Your task to perform on an android device: turn off wifi Image 0: 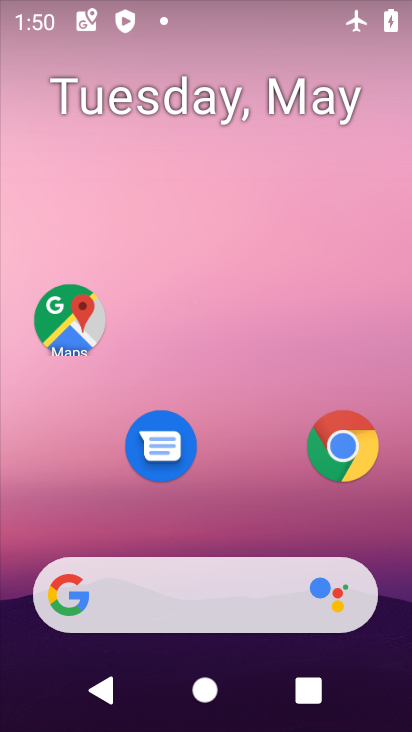
Step 0: drag from (207, 533) to (198, 0)
Your task to perform on an android device: turn off wifi Image 1: 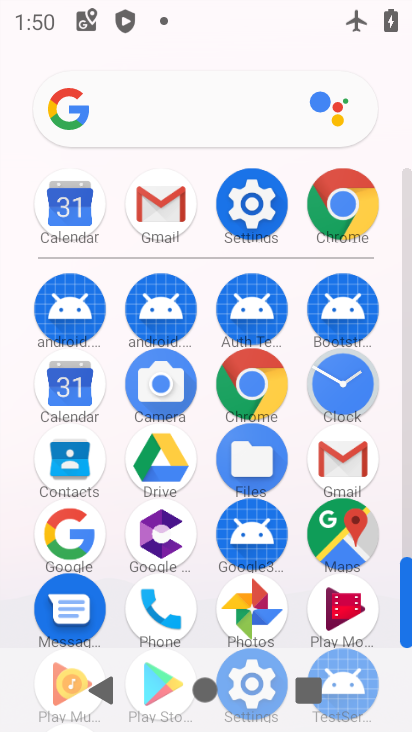
Step 1: click (266, 207)
Your task to perform on an android device: turn off wifi Image 2: 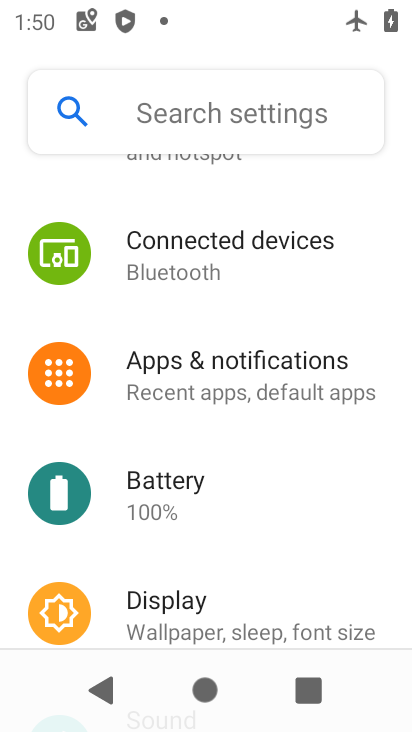
Step 2: drag from (250, 223) to (237, 509)
Your task to perform on an android device: turn off wifi Image 3: 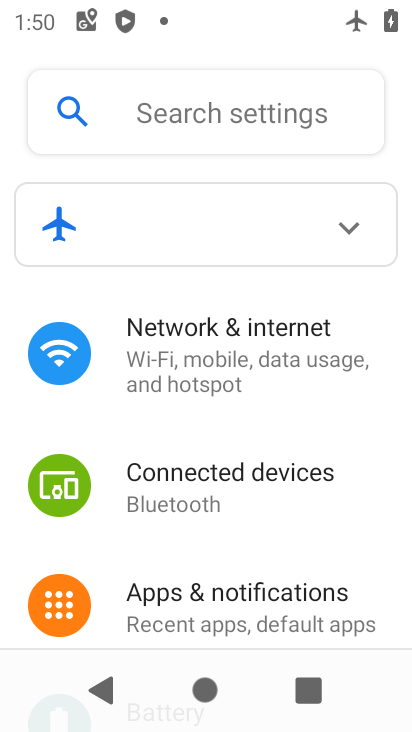
Step 3: click (222, 342)
Your task to perform on an android device: turn off wifi Image 4: 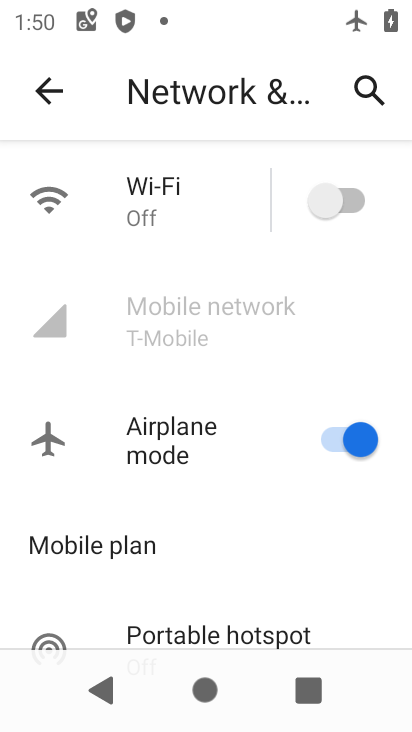
Step 4: task complete